Your task to perform on an android device: Open the Play Movies app and select the watchlist tab. Image 0: 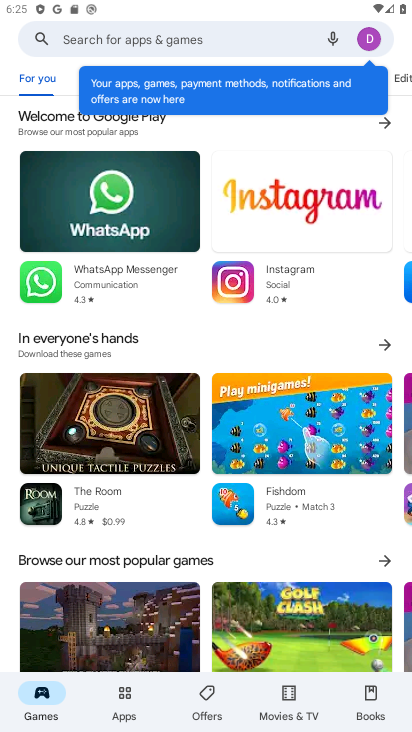
Step 0: press home button
Your task to perform on an android device: Open the Play Movies app and select the watchlist tab. Image 1: 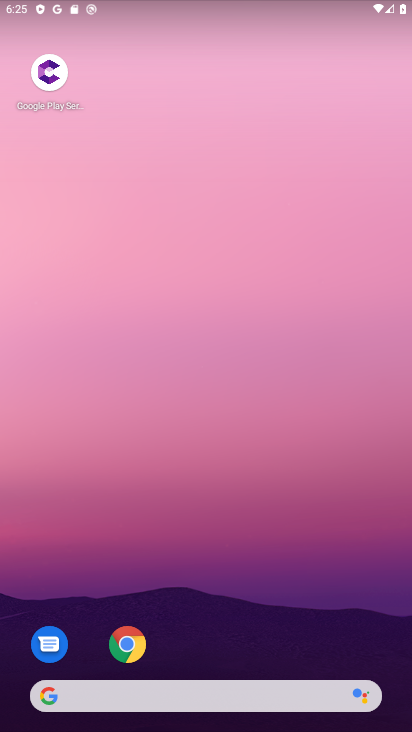
Step 1: drag from (237, 646) to (229, 370)
Your task to perform on an android device: Open the Play Movies app and select the watchlist tab. Image 2: 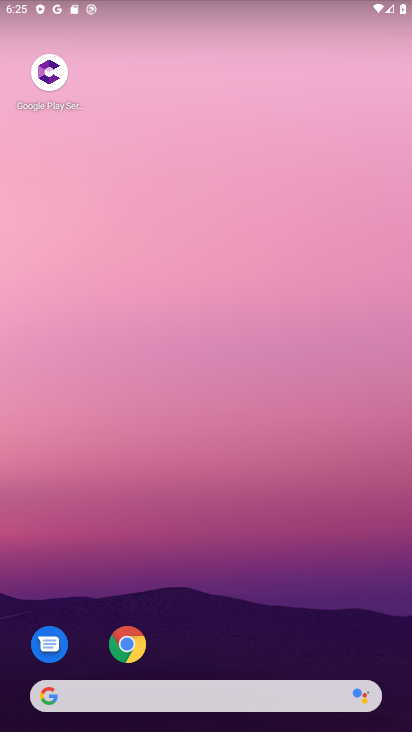
Step 2: drag from (305, 620) to (290, 215)
Your task to perform on an android device: Open the Play Movies app and select the watchlist tab. Image 3: 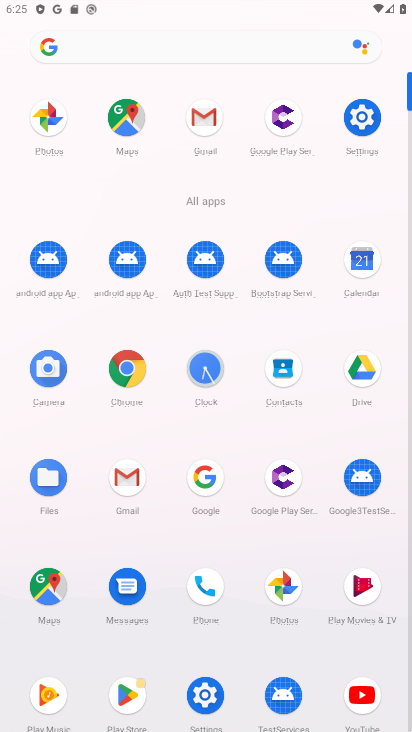
Step 3: click (349, 583)
Your task to perform on an android device: Open the Play Movies app and select the watchlist tab. Image 4: 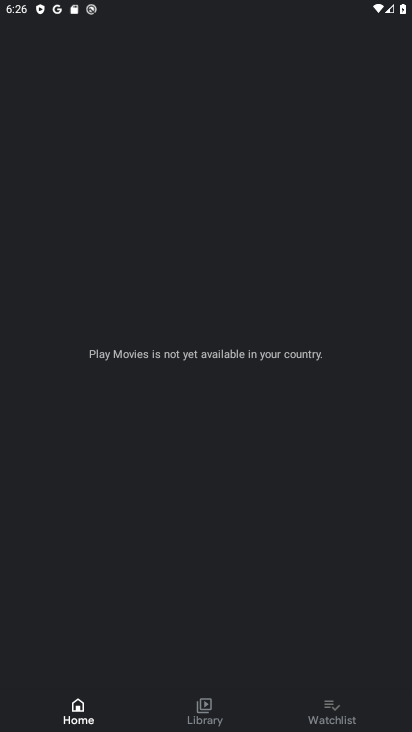
Step 4: click (325, 714)
Your task to perform on an android device: Open the Play Movies app and select the watchlist tab. Image 5: 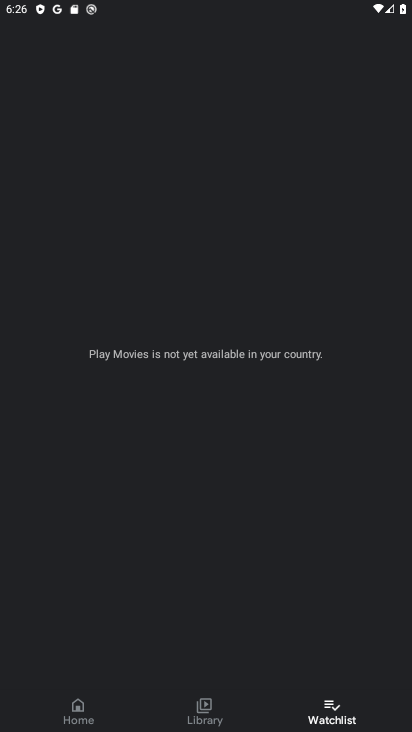
Step 5: task complete